Your task to perform on an android device: Show me the alarms in the clock app Image 0: 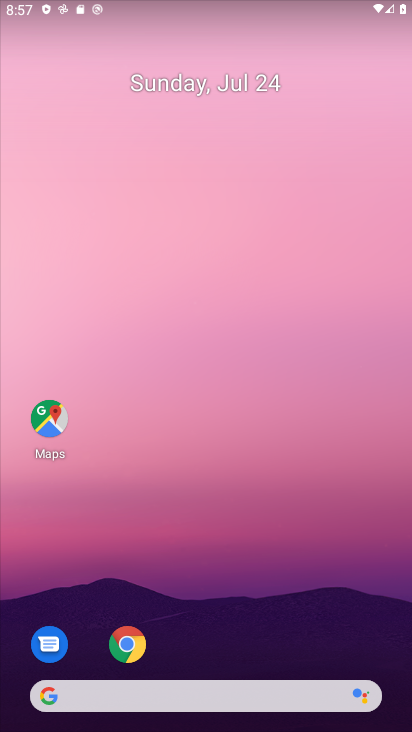
Step 0: drag from (298, 669) to (209, 190)
Your task to perform on an android device: Show me the alarms in the clock app Image 1: 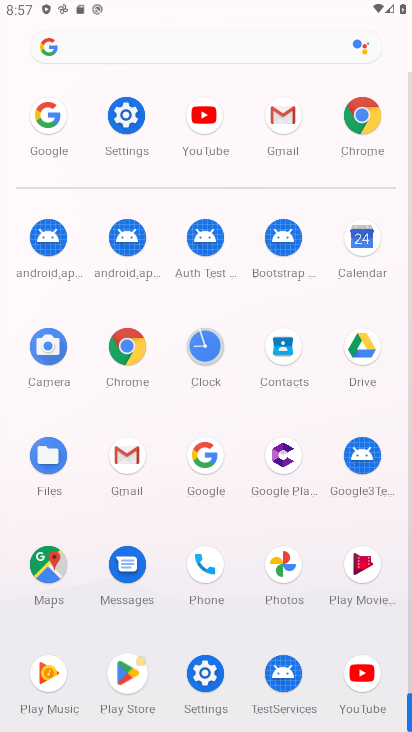
Step 1: click (204, 342)
Your task to perform on an android device: Show me the alarms in the clock app Image 2: 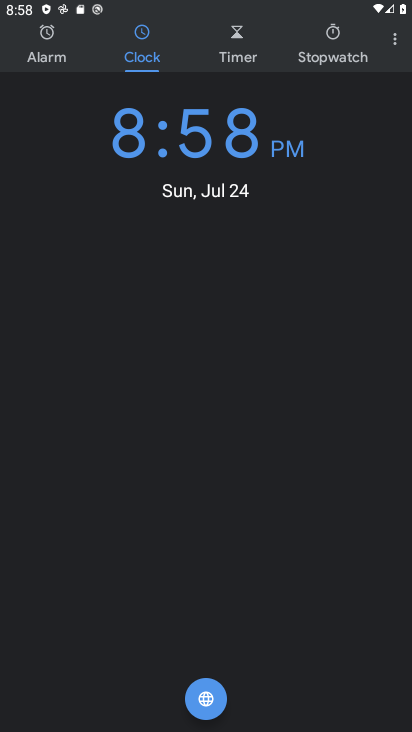
Step 2: click (43, 65)
Your task to perform on an android device: Show me the alarms in the clock app Image 3: 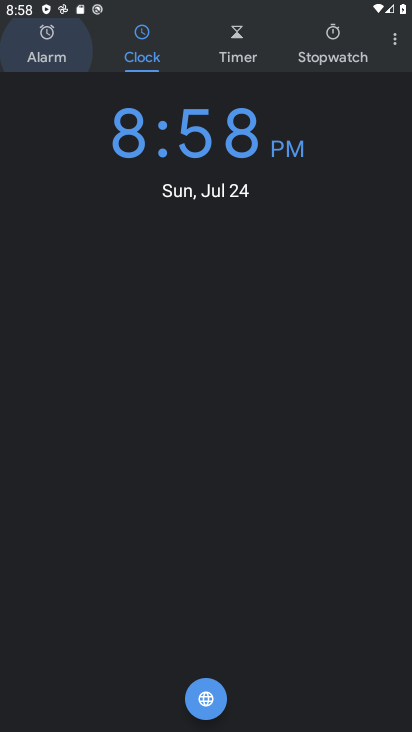
Step 3: click (42, 64)
Your task to perform on an android device: Show me the alarms in the clock app Image 4: 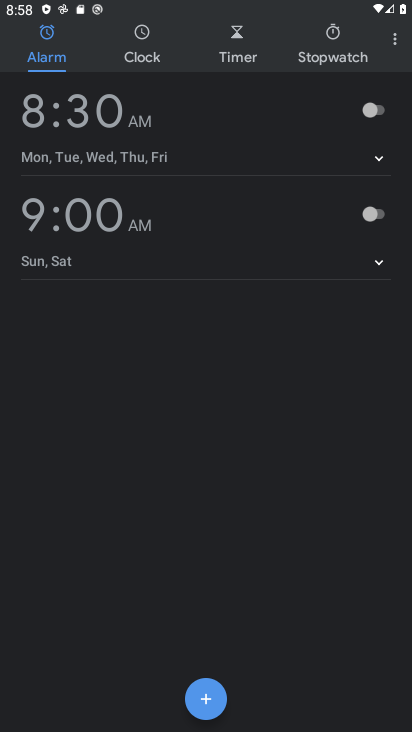
Step 4: click (379, 111)
Your task to perform on an android device: Show me the alarms in the clock app Image 5: 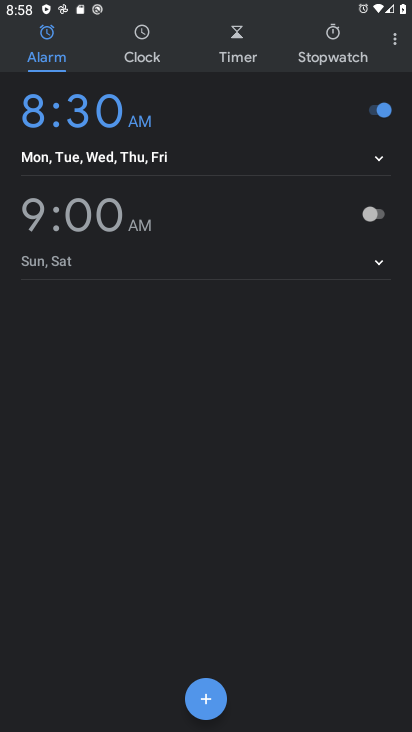
Step 5: press back button
Your task to perform on an android device: Show me the alarms in the clock app Image 6: 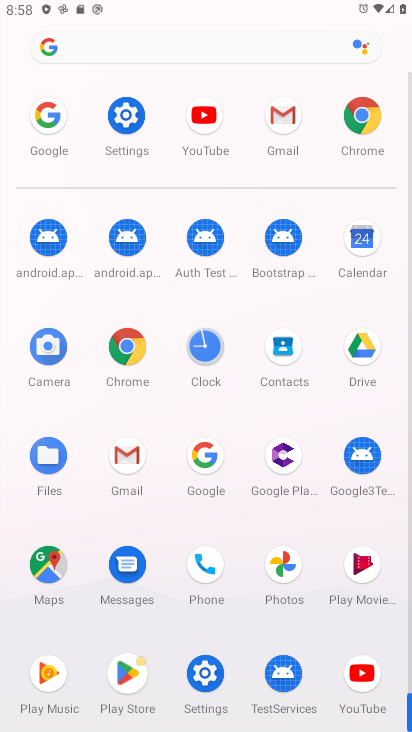
Step 6: click (193, 339)
Your task to perform on an android device: Show me the alarms in the clock app Image 7: 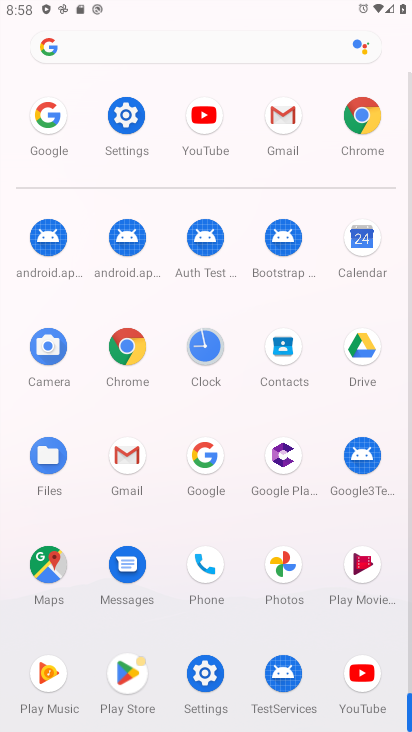
Step 7: click (205, 342)
Your task to perform on an android device: Show me the alarms in the clock app Image 8: 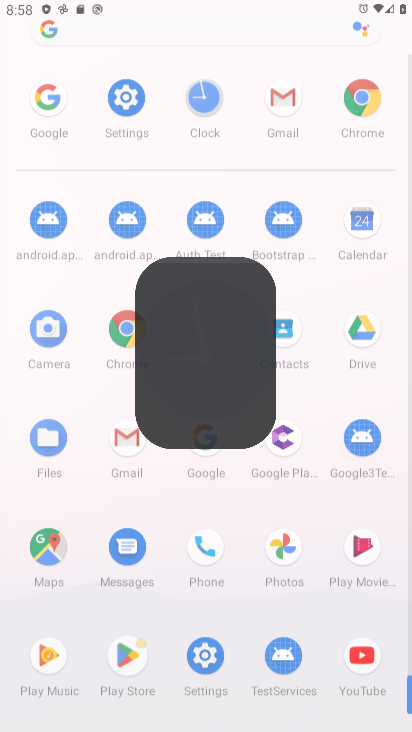
Step 8: click (206, 346)
Your task to perform on an android device: Show me the alarms in the clock app Image 9: 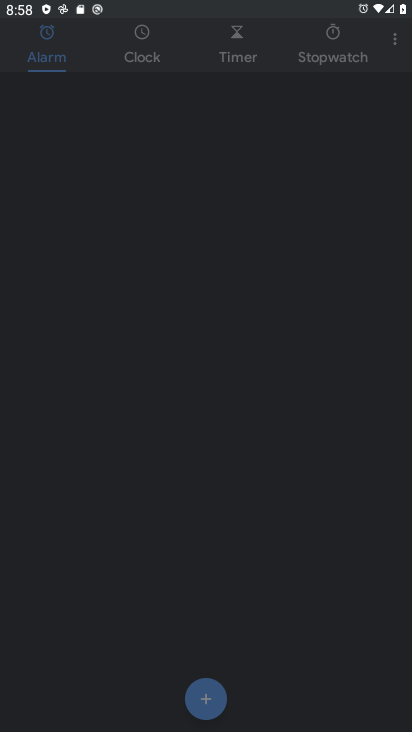
Step 9: click (205, 349)
Your task to perform on an android device: Show me the alarms in the clock app Image 10: 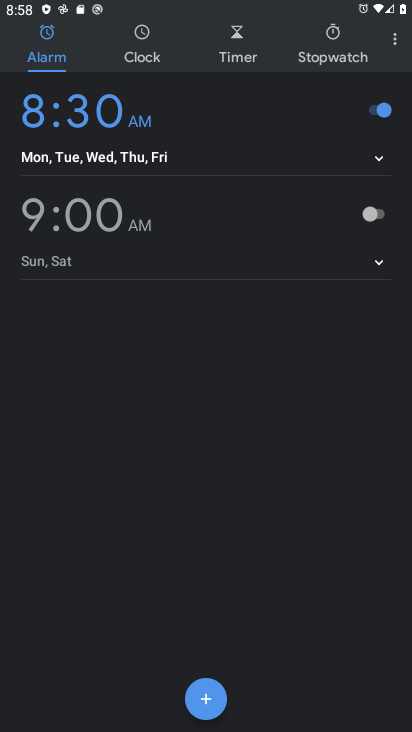
Step 10: click (208, 345)
Your task to perform on an android device: Show me the alarms in the clock app Image 11: 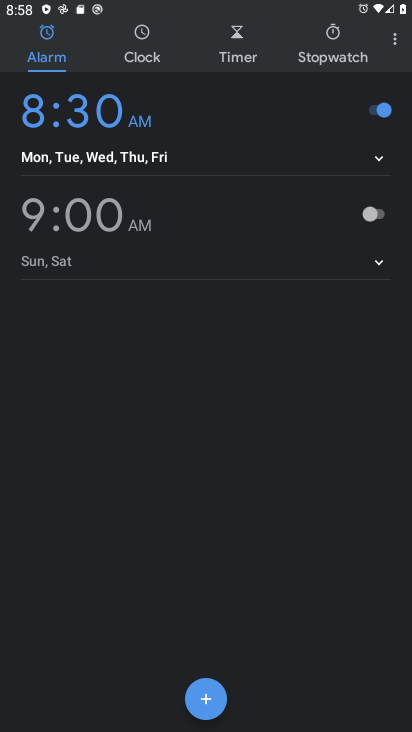
Step 11: task complete